Your task to perform on an android device: check out phone information Image 0: 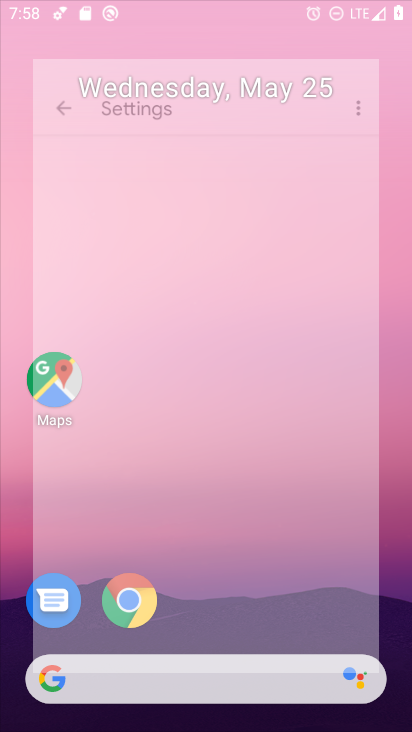
Step 0: drag from (290, 599) to (272, 113)
Your task to perform on an android device: check out phone information Image 1: 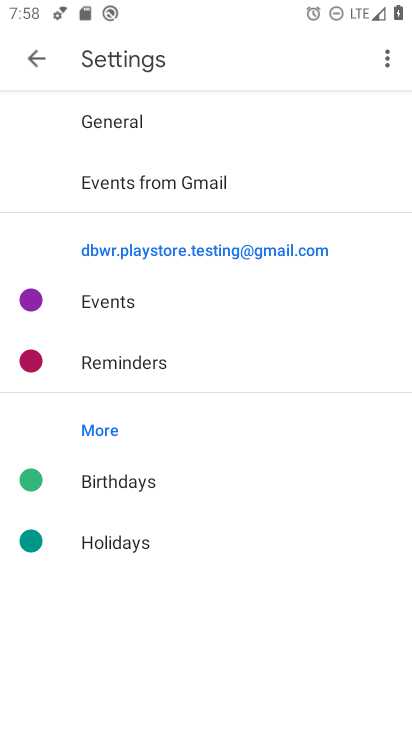
Step 1: press home button
Your task to perform on an android device: check out phone information Image 2: 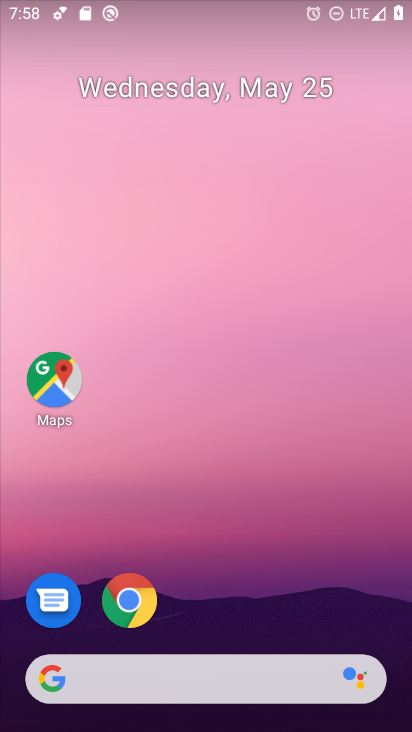
Step 2: drag from (314, 547) to (257, 149)
Your task to perform on an android device: check out phone information Image 3: 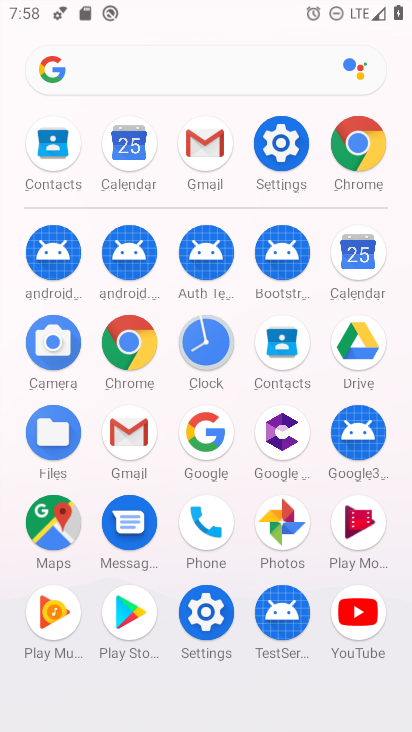
Step 3: click (215, 525)
Your task to perform on an android device: check out phone information Image 4: 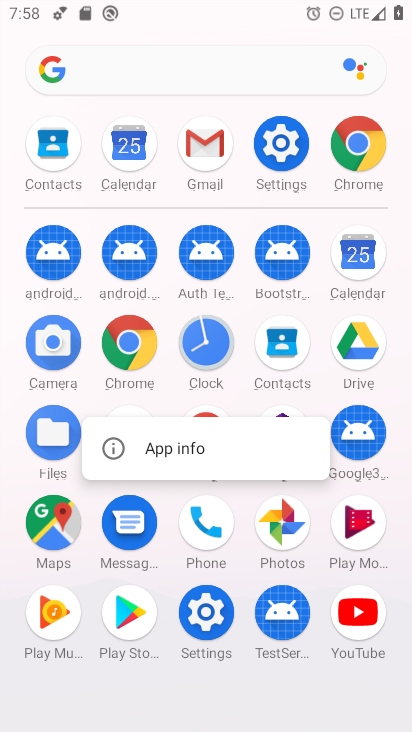
Step 4: click (219, 462)
Your task to perform on an android device: check out phone information Image 5: 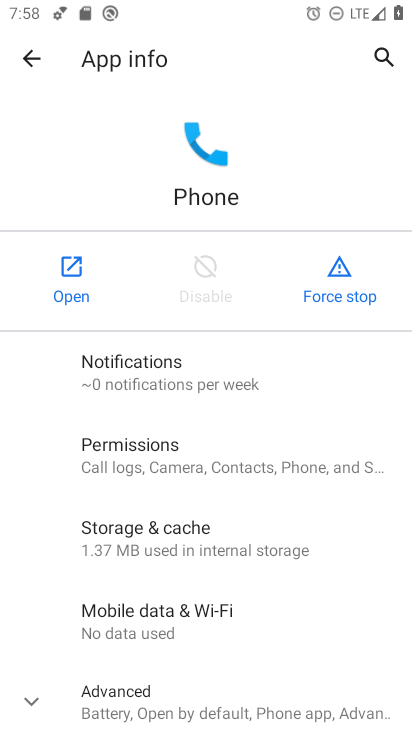
Step 5: task complete